Your task to perform on an android device: turn on improve location accuracy Image 0: 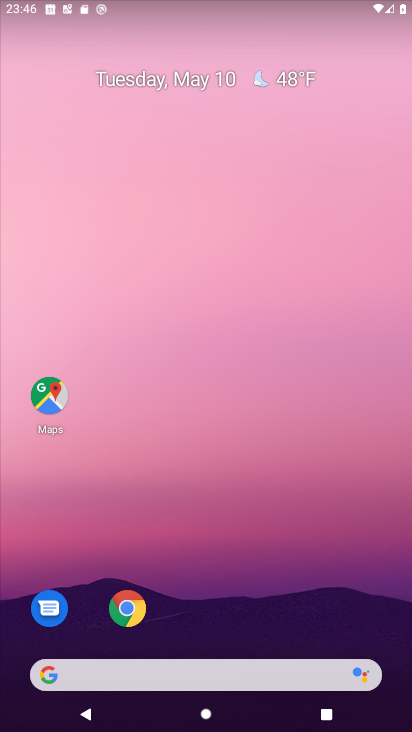
Step 0: drag from (287, 569) to (325, 236)
Your task to perform on an android device: turn on improve location accuracy Image 1: 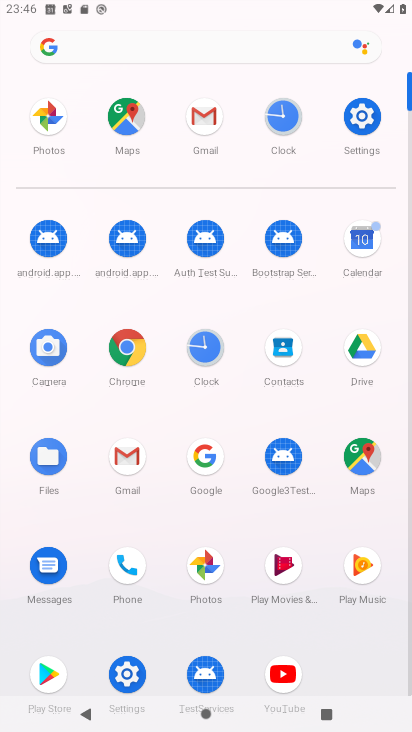
Step 1: click (366, 100)
Your task to perform on an android device: turn on improve location accuracy Image 2: 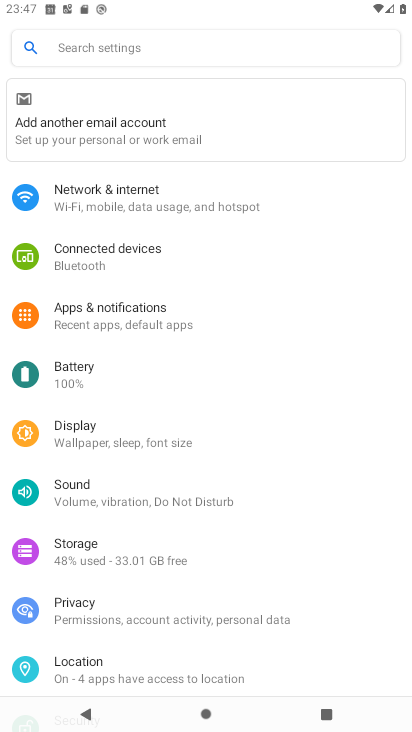
Step 2: click (141, 665)
Your task to perform on an android device: turn on improve location accuracy Image 3: 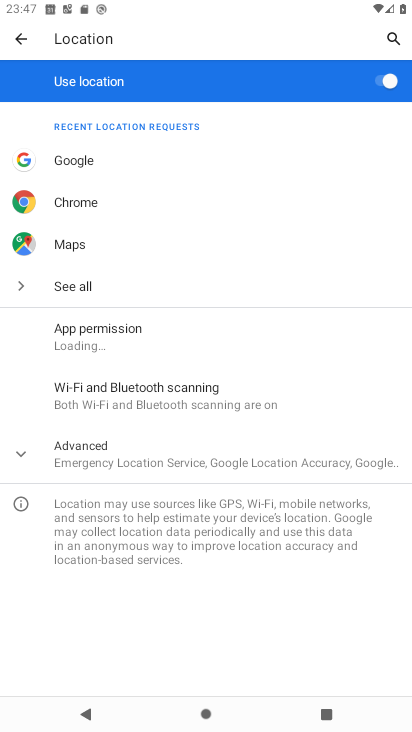
Step 3: click (177, 457)
Your task to perform on an android device: turn on improve location accuracy Image 4: 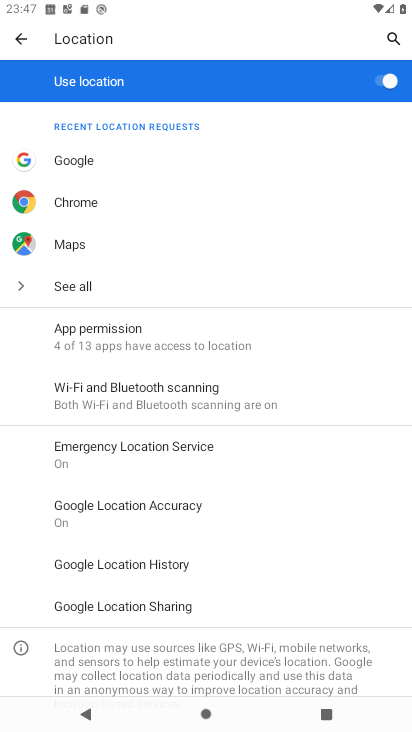
Step 4: task complete